Your task to perform on an android device: Open Chrome and go to the settings page Image 0: 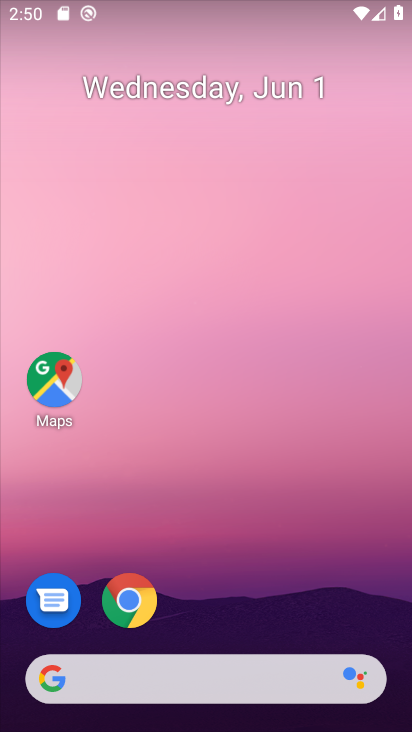
Step 0: click (110, 611)
Your task to perform on an android device: Open Chrome and go to the settings page Image 1: 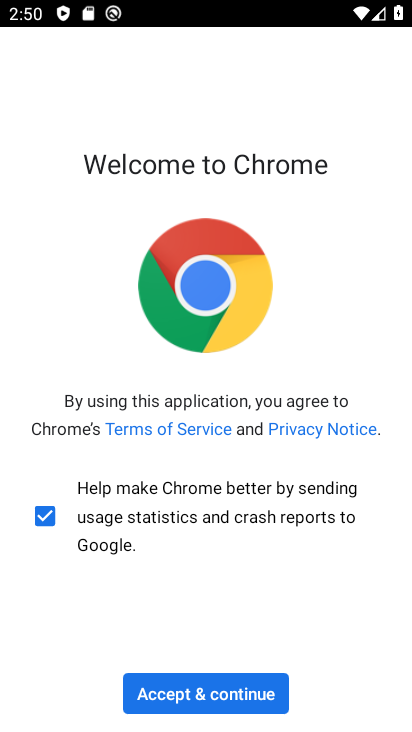
Step 1: click (244, 692)
Your task to perform on an android device: Open Chrome and go to the settings page Image 2: 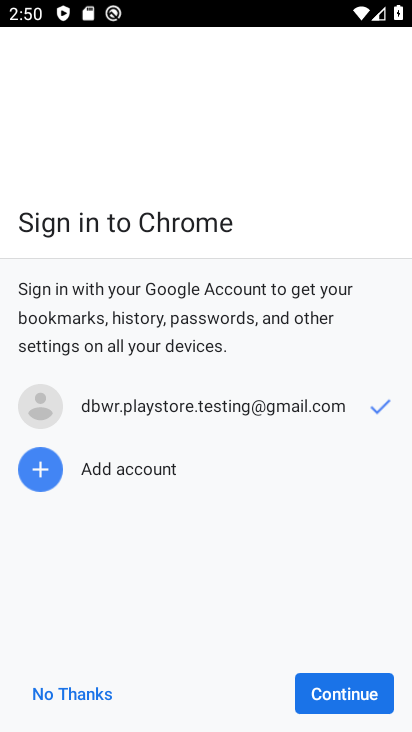
Step 2: click (317, 709)
Your task to perform on an android device: Open Chrome and go to the settings page Image 3: 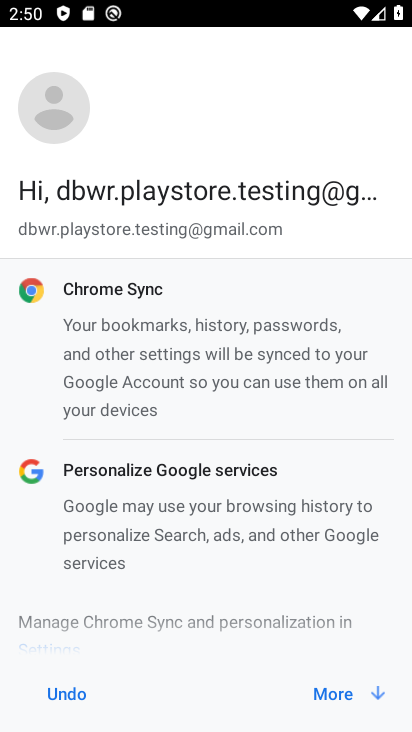
Step 3: click (317, 709)
Your task to perform on an android device: Open Chrome and go to the settings page Image 4: 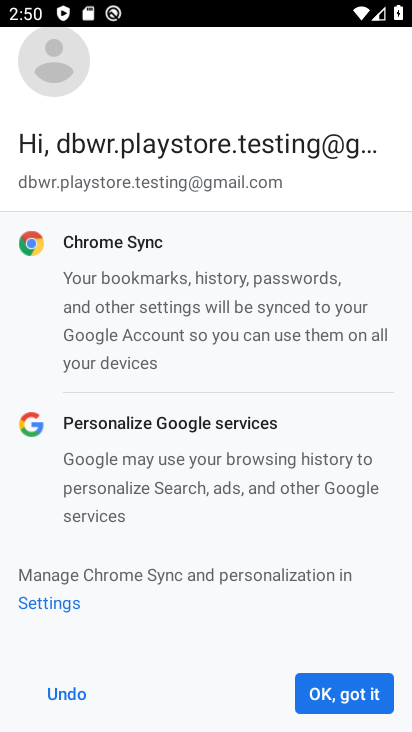
Step 4: click (315, 709)
Your task to perform on an android device: Open Chrome and go to the settings page Image 5: 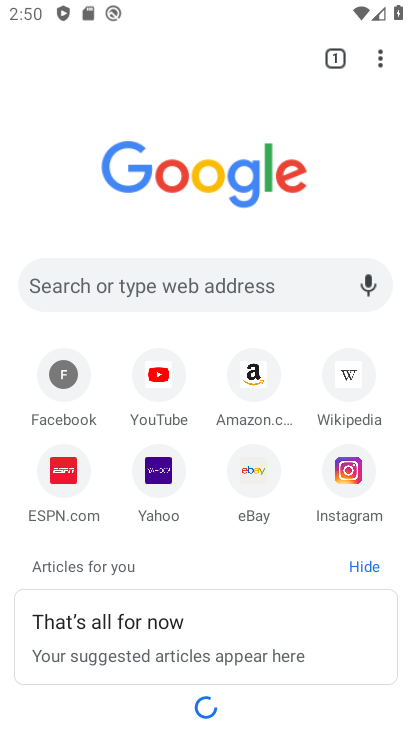
Step 5: task complete